Your task to perform on an android device: Show me popular games on the Play Store Image 0: 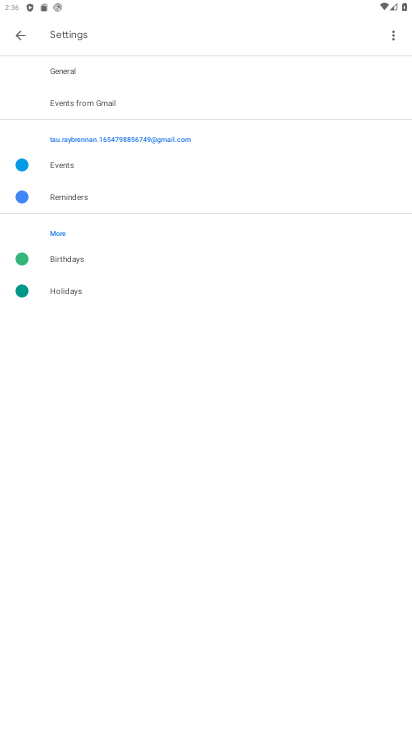
Step 0: press home button
Your task to perform on an android device: Show me popular games on the Play Store Image 1: 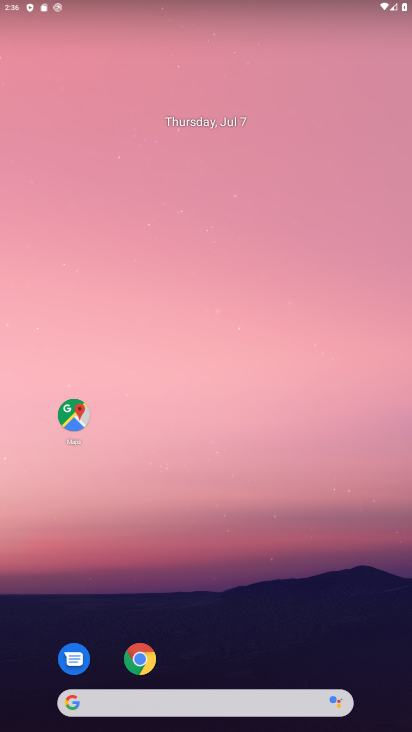
Step 1: drag from (281, 610) to (203, 185)
Your task to perform on an android device: Show me popular games on the Play Store Image 2: 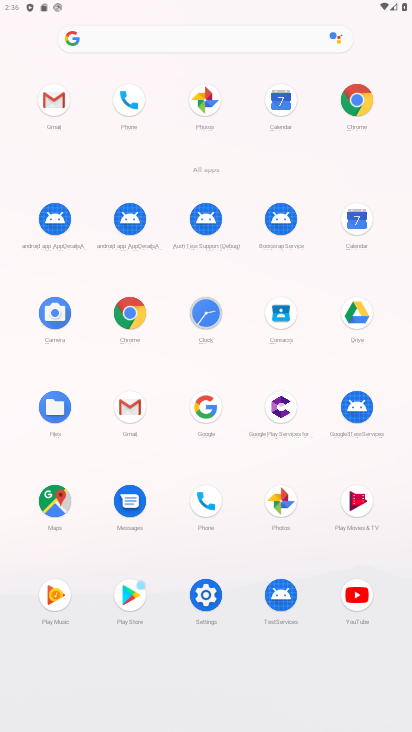
Step 2: click (124, 589)
Your task to perform on an android device: Show me popular games on the Play Store Image 3: 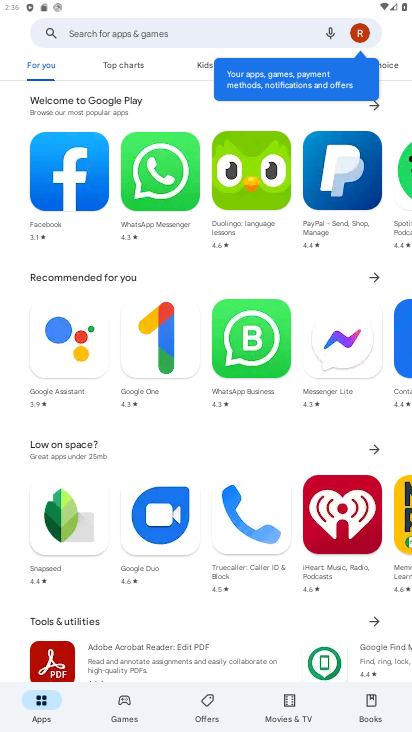
Step 3: click (123, 728)
Your task to perform on an android device: Show me popular games on the Play Store Image 4: 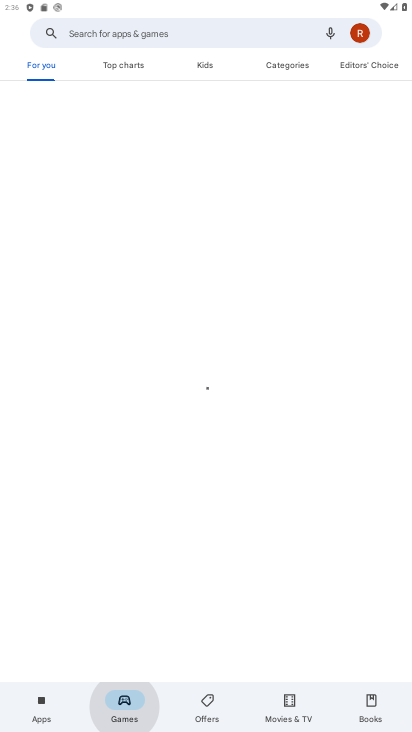
Step 4: click (125, 715)
Your task to perform on an android device: Show me popular games on the Play Store Image 5: 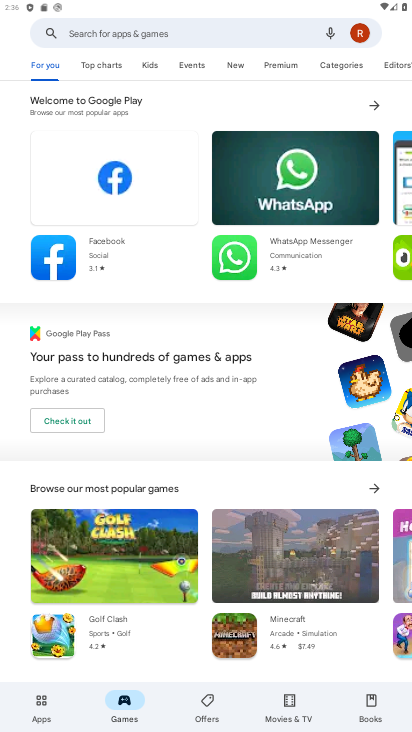
Step 5: drag from (203, 504) to (171, 268)
Your task to perform on an android device: Show me popular games on the Play Store Image 6: 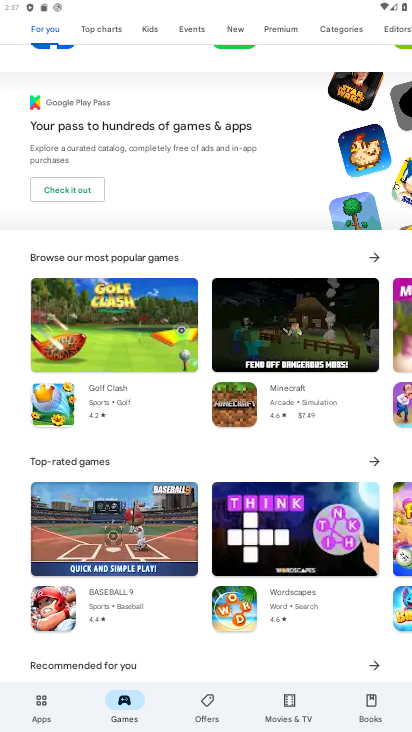
Step 6: click (348, 253)
Your task to perform on an android device: Show me popular games on the Play Store Image 7: 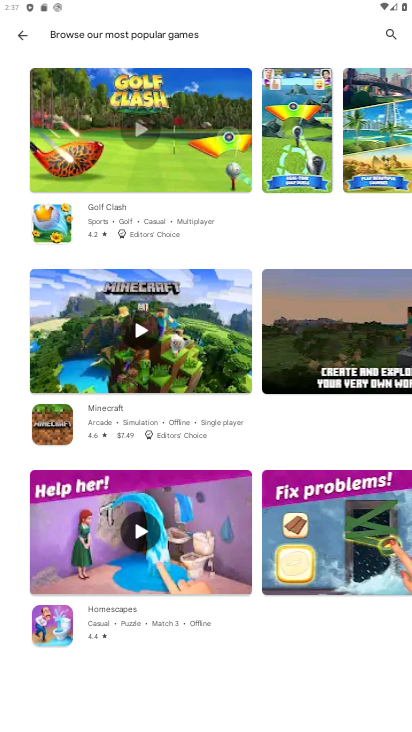
Step 7: task complete